Your task to perform on an android device: Open Youtube and go to the subscriptions tab Image 0: 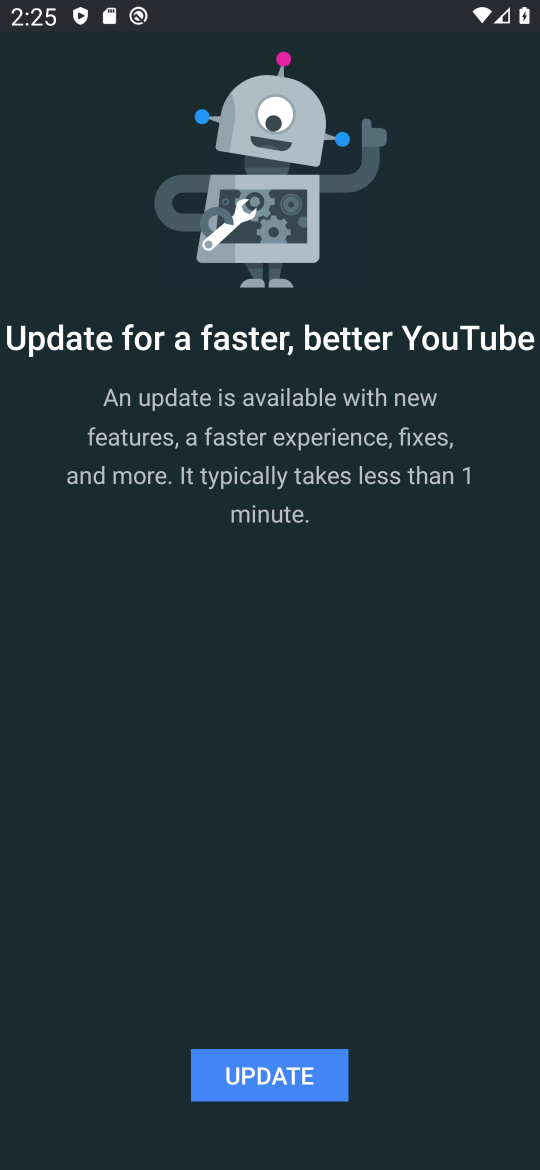
Step 0: press home button
Your task to perform on an android device: Open Youtube and go to the subscriptions tab Image 1: 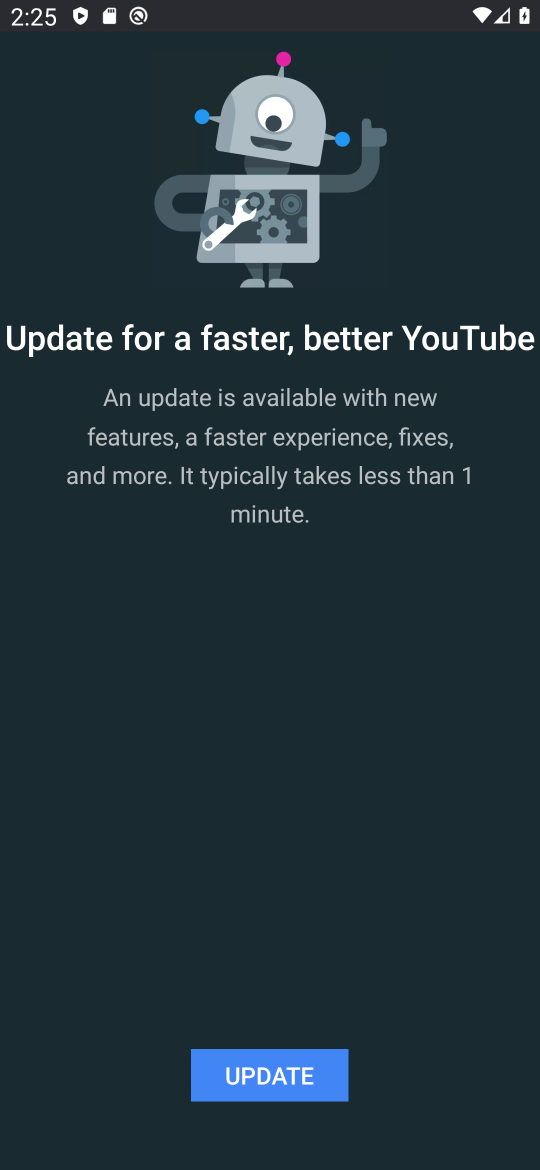
Step 1: drag from (499, 1069) to (293, 5)
Your task to perform on an android device: Open Youtube and go to the subscriptions tab Image 2: 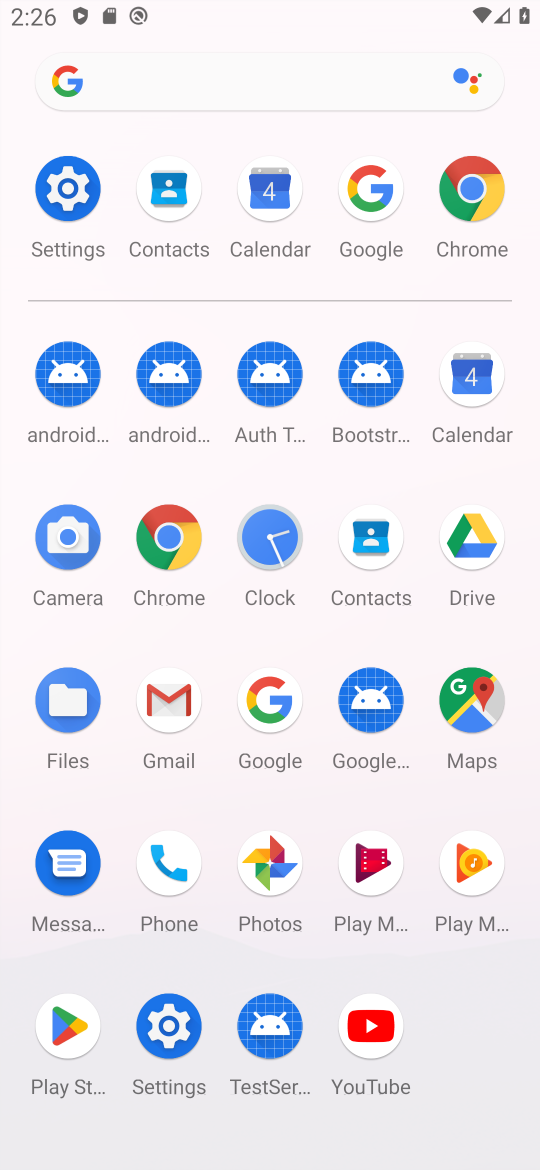
Step 2: click (385, 1032)
Your task to perform on an android device: Open Youtube and go to the subscriptions tab Image 3: 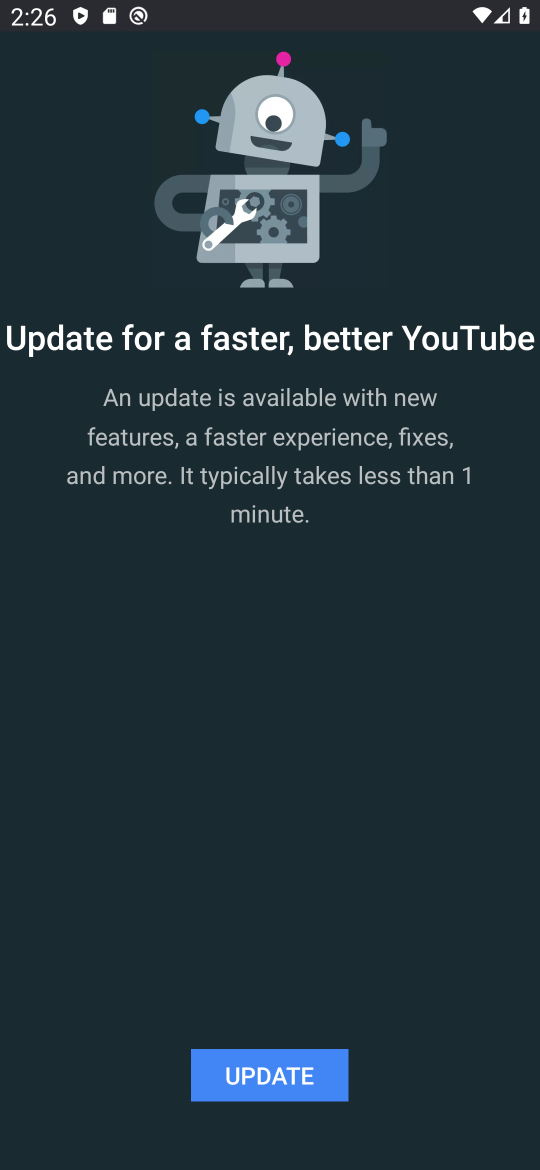
Step 3: click (317, 1063)
Your task to perform on an android device: Open Youtube and go to the subscriptions tab Image 4: 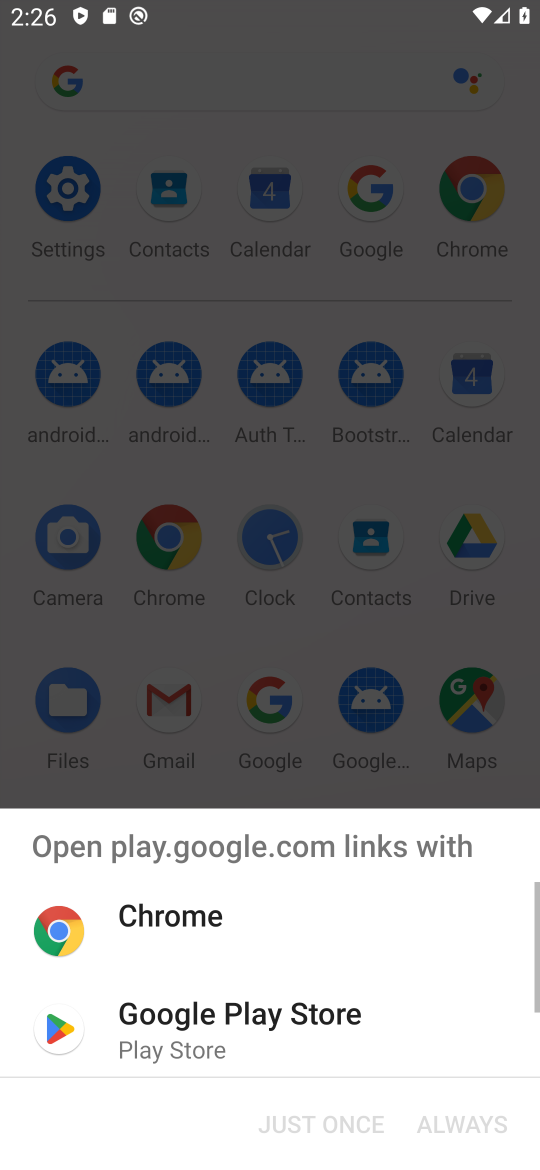
Step 4: click (112, 1039)
Your task to perform on an android device: Open Youtube and go to the subscriptions tab Image 5: 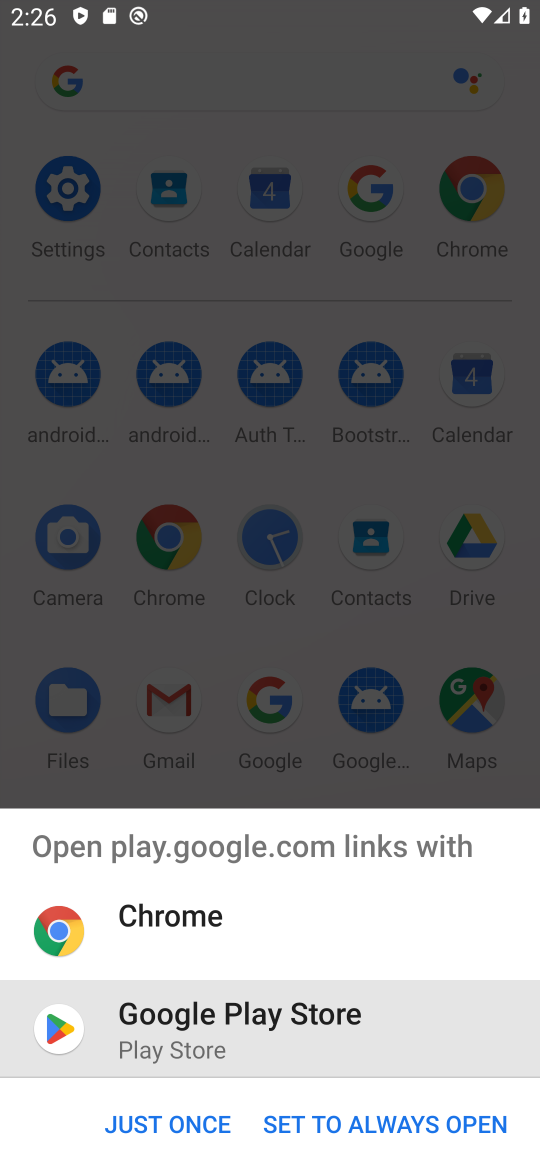
Step 5: click (181, 1137)
Your task to perform on an android device: Open Youtube and go to the subscriptions tab Image 6: 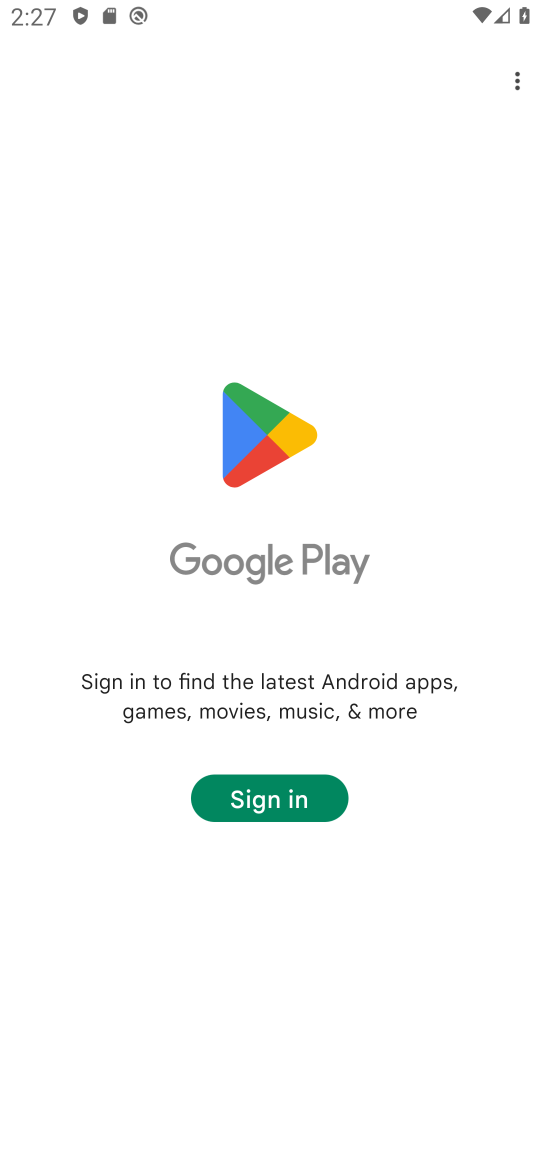
Step 6: task complete